Your task to perform on an android device: stop showing notifications on the lock screen Image 0: 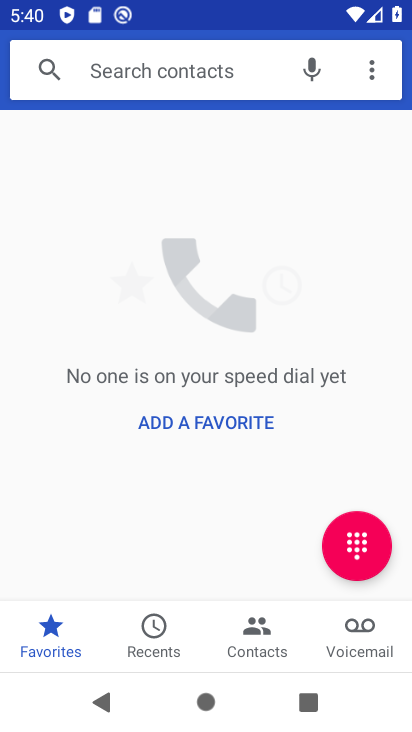
Step 0: press home button
Your task to perform on an android device: stop showing notifications on the lock screen Image 1: 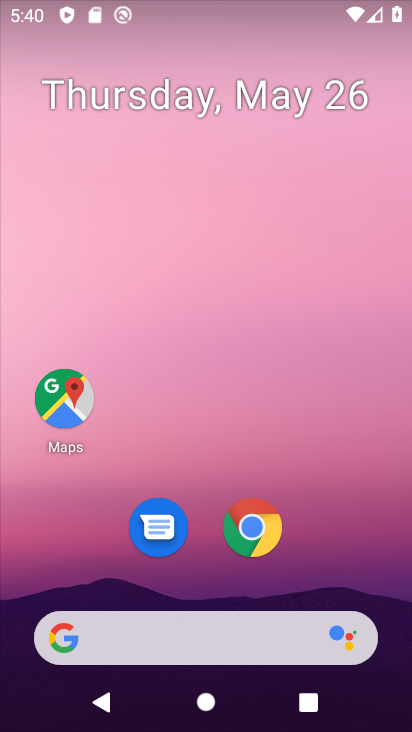
Step 1: click (262, 532)
Your task to perform on an android device: stop showing notifications on the lock screen Image 2: 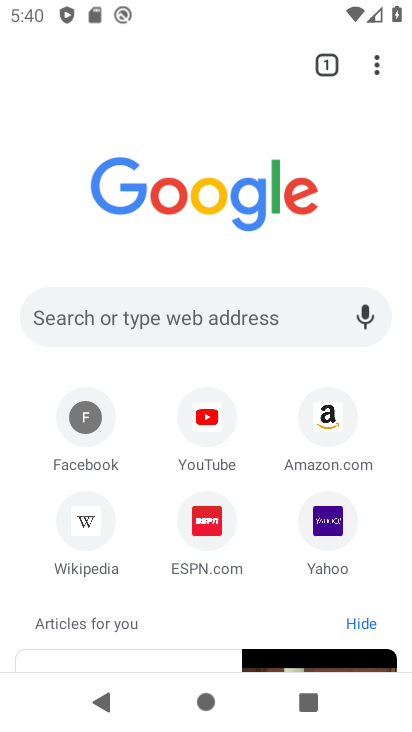
Step 2: press home button
Your task to perform on an android device: stop showing notifications on the lock screen Image 3: 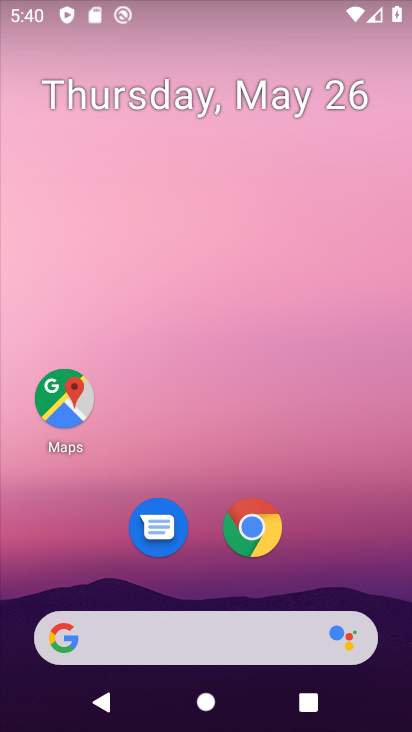
Step 3: drag from (179, 611) to (179, 214)
Your task to perform on an android device: stop showing notifications on the lock screen Image 4: 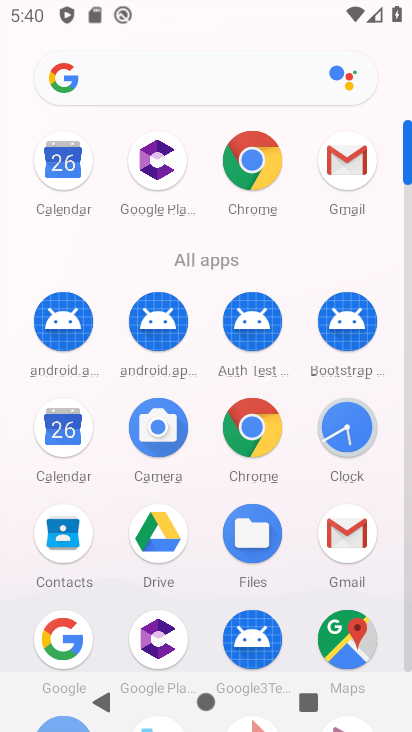
Step 4: drag from (205, 555) to (266, 105)
Your task to perform on an android device: stop showing notifications on the lock screen Image 5: 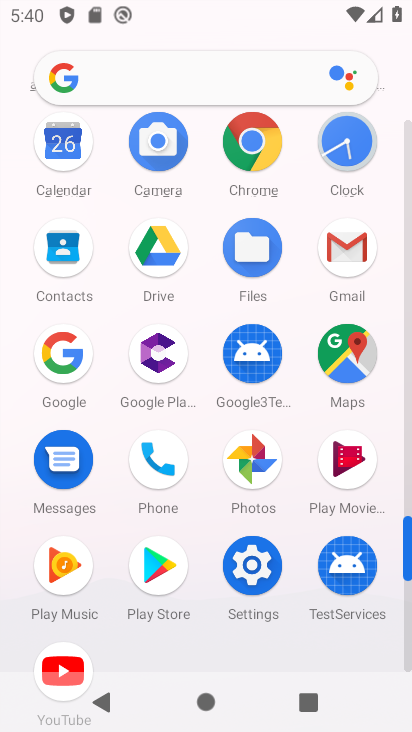
Step 5: click (274, 560)
Your task to perform on an android device: stop showing notifications on the lock screen Image 6: 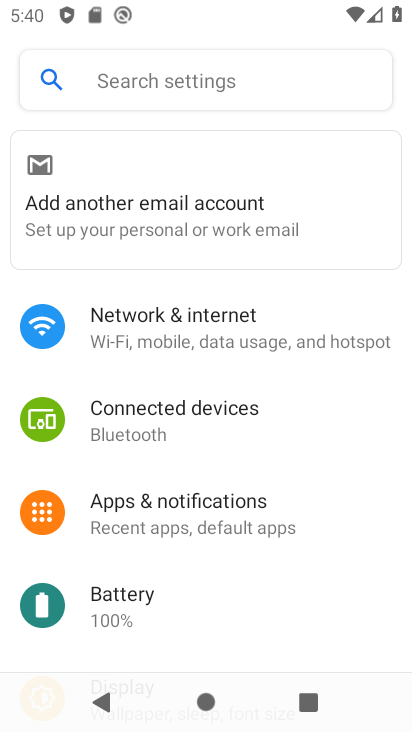
Step 6: drag from (171, 527) to (249, 107)
Your task to perform on an android device: stop showing notifications on the lock screen Image 7: 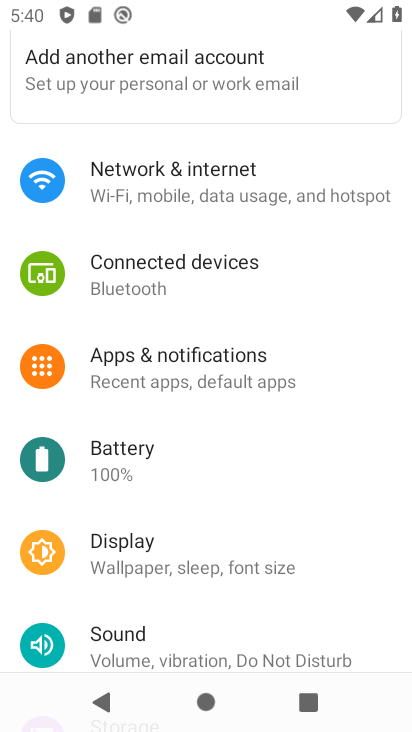
Step 7: drag from (219, 620) to (266, 234)
Your task to perform on an android device: stop showing notifications on the lock screen Image 8: 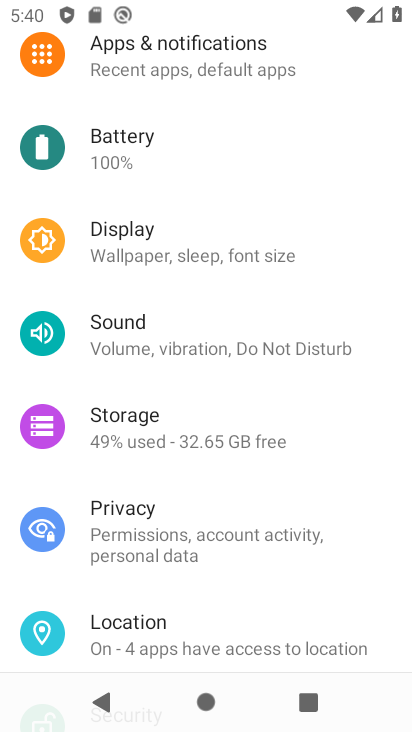
Step 8: click (140, 548)
Your task to perform on an android device: stop showing notifications on the lock screen Image 9: 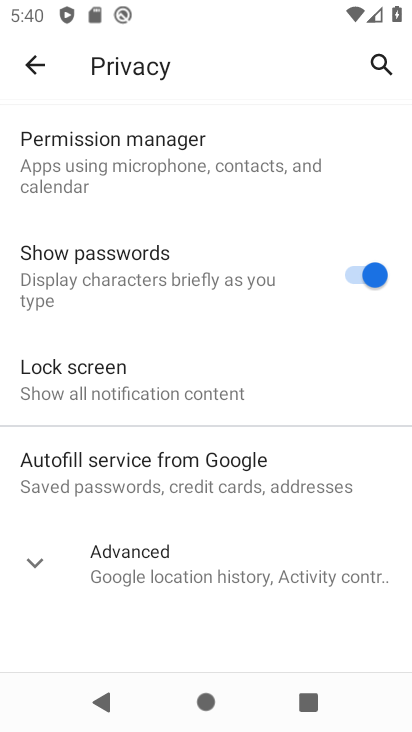
Step 9: click (108, 399)
Your task to perform on an android device: stop showing notifications on the lock screen Image 10: 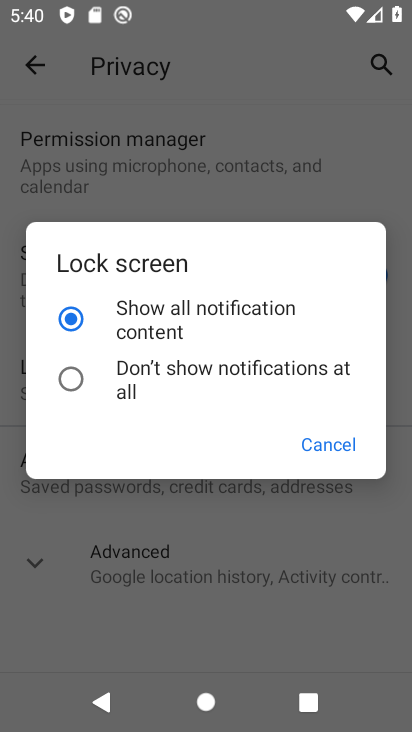
Step 10: click (238, 369)
Your task to perform on an android device: stop showing notifications on the lock screen Image 11: 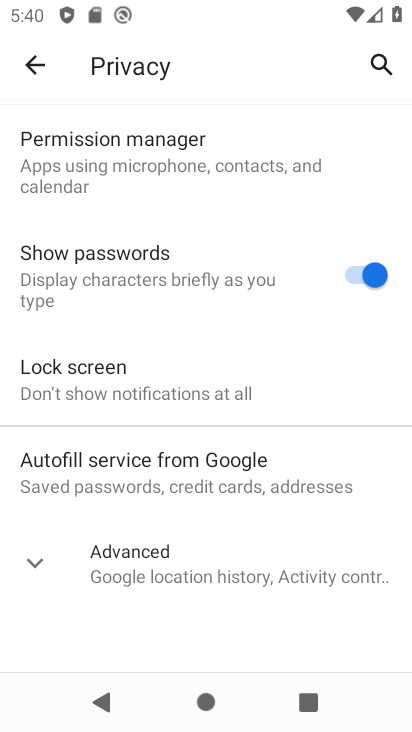
Step 11: task complete